Your task to perform on an android device: Open Android settings Image 0: 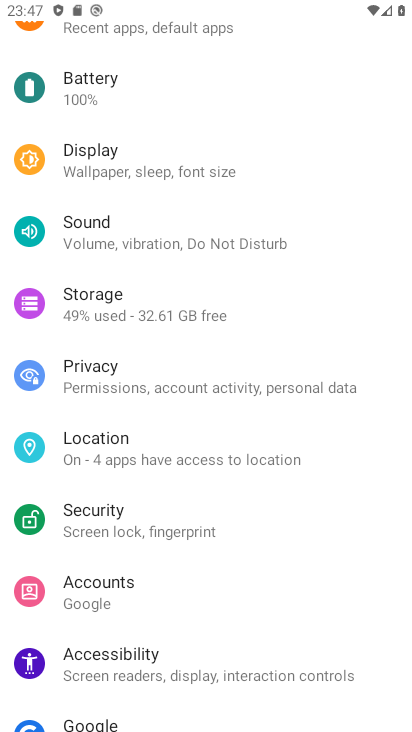
Step 0: task complete